Your task to perform on an android device: Open Wikipedia Image 0: 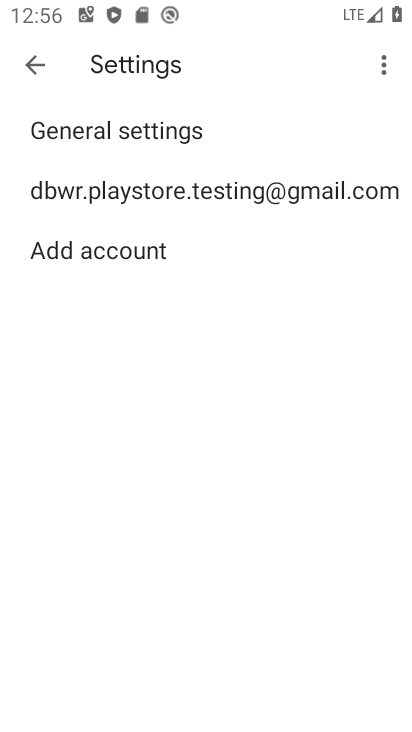
Step 0: press back button
Your task to perform on an android device: Open Wikipedia Image 1: 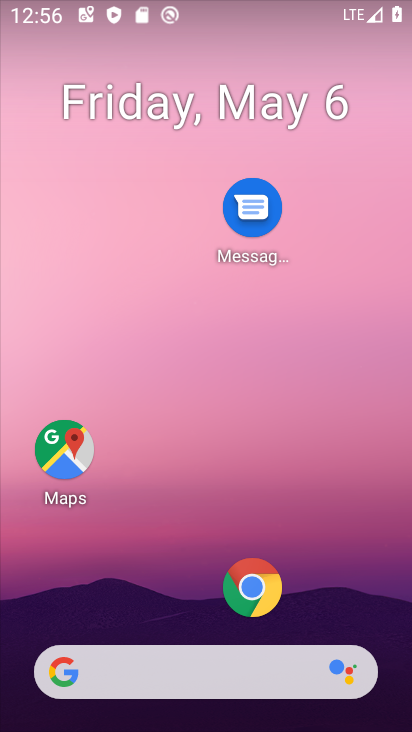
Step 1: drag from (148, 650) to (212, 150)
Your task to perform on an android device: Open Wikipedia Image 2: 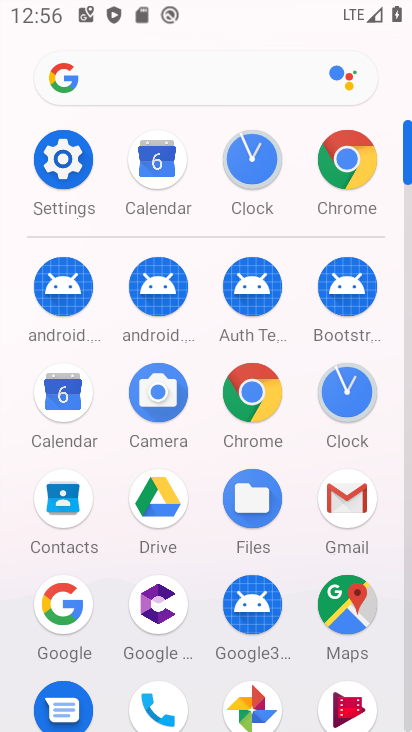
Step 2: click (355, 153)
Your task to perform on an android device: Open Wikipedia Image 3: 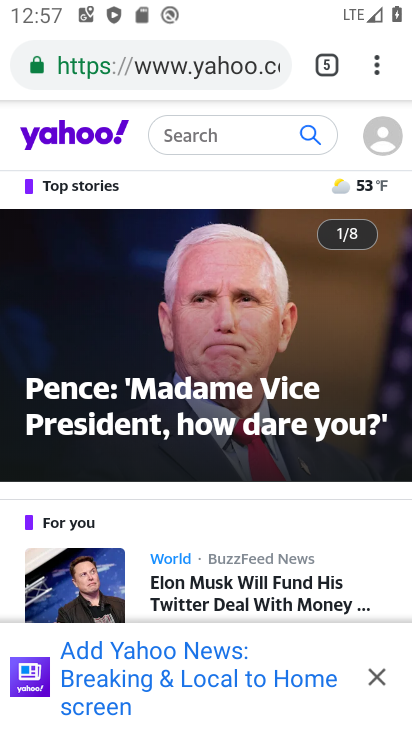
Step 3: click (330, 54)
Your task to perform on an android device: Open Wikipedia Image 4: 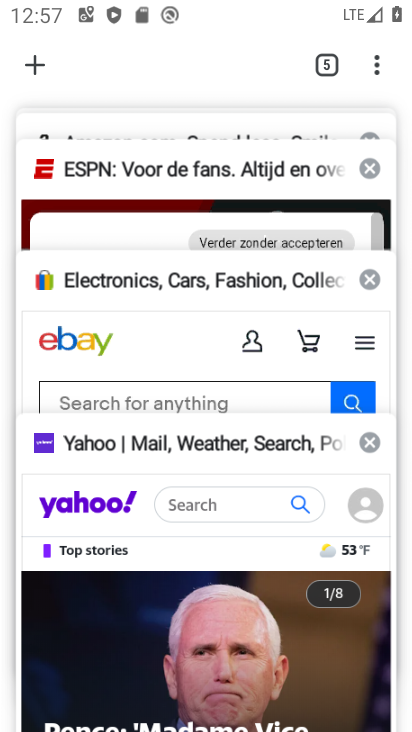
Step 4: drag from (120, 171) to (139, 576)
Your task to perform on an android device: Open Wikipedia Image 5: 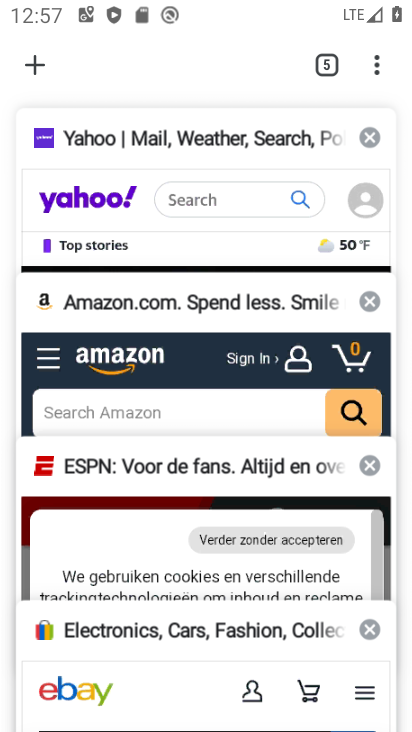
Step 5: drag from (122, 228) to (122, 604)
Your task to perform on an android device: Open Wikipedia Image 6: 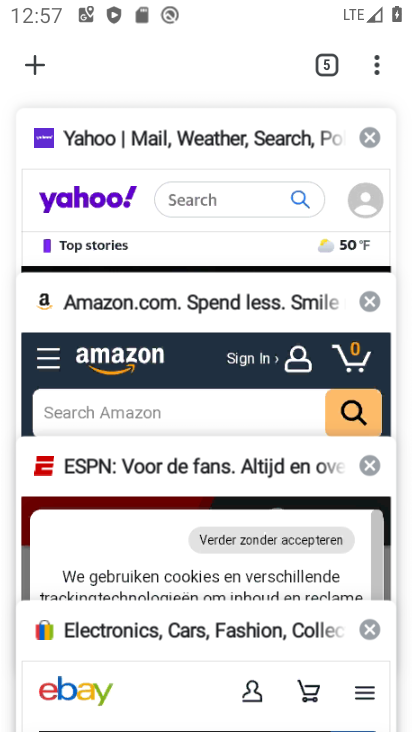
Step 6: click (34, 55)
Your task to perform on an android device: Open Wikipedia Image 7: 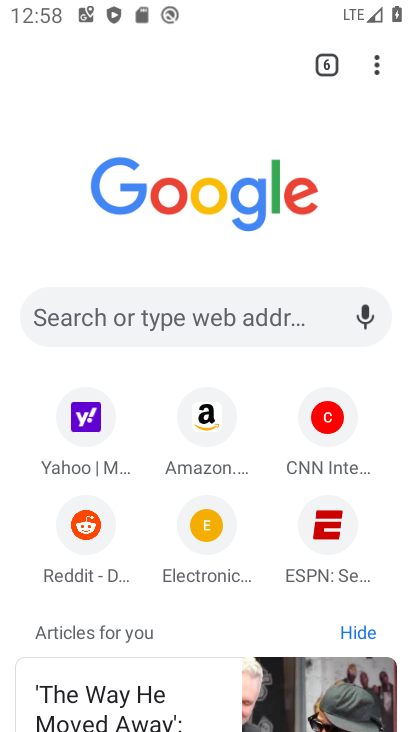
Step 7: click (129, 319)
Your task to perform on an android device: Open Wikipedia Image 8: 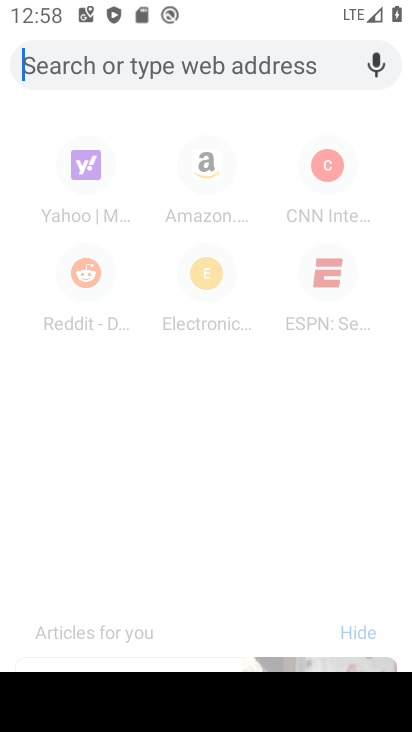
Step 8: type "wikipedia"
Your task to perform on an android device: Open Wikipedia Image 9: 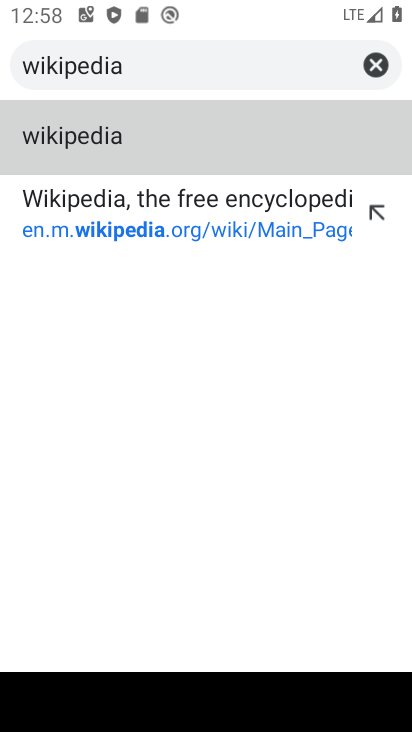
Step 9: click (155, 154)
Your task to perform on an android device: Open Wikipedia Image 10: 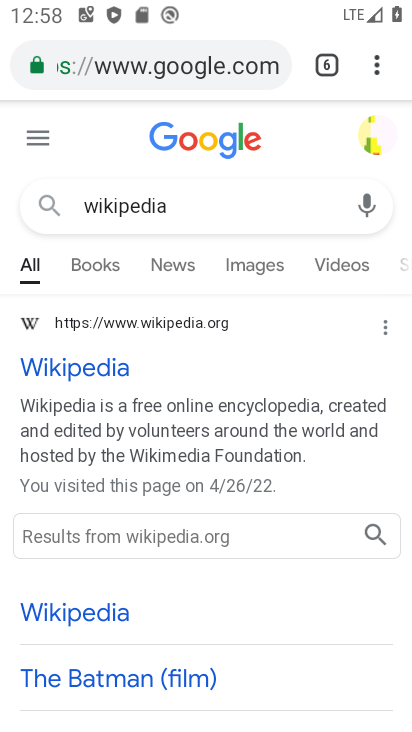
Step 10: click (57, 367)
Your task to perform on an android device: Open Wikipedia Image 11: 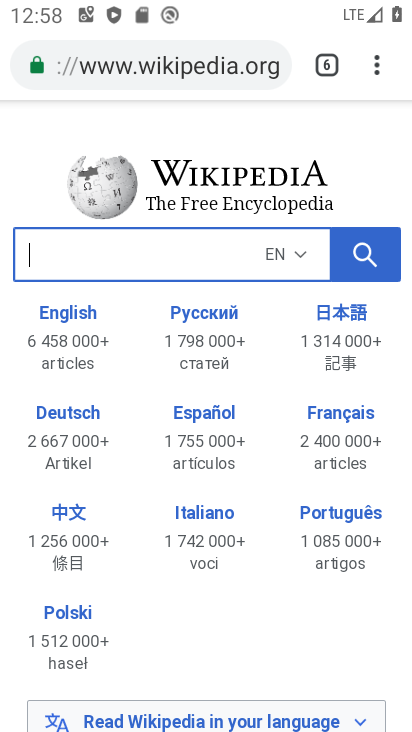
Step 11: task complete